Your task to perform on an android device: clear history in the chrome app Image 0: 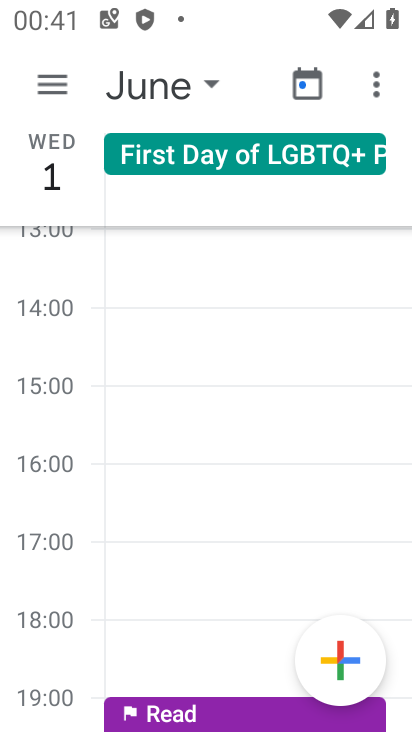
Step 0: press home button
Your task to perform on an android device: clear history in the chrome app Image 1: 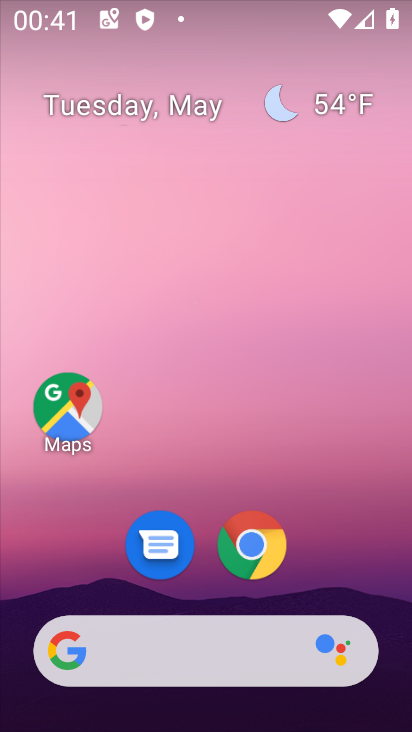
Step 1: click (266, 551)
Your task to perform on an android device: clear history in the chrome app Image 2: 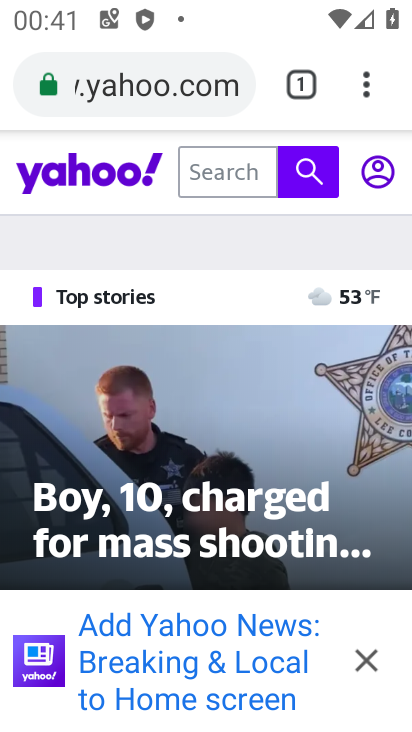
Step 2: click (363, 93)
Your task to perform on an android device: clear history in the chrome app Image 3: 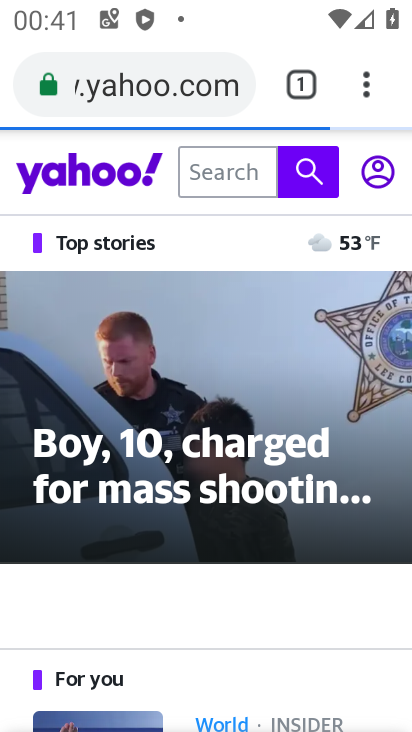
Step 3: click (372, 99)
Your task to perform on an android device: clear history in the chrome app Image 4: 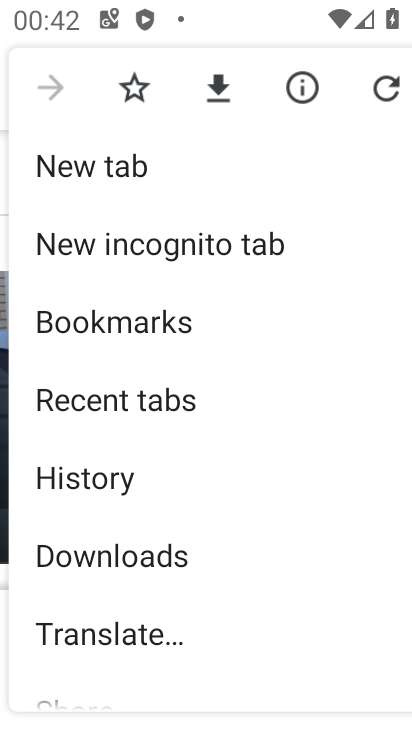
Step 4: click (206, 464)
Your task to perform on an android device: clear history in the chrome app Image 5: 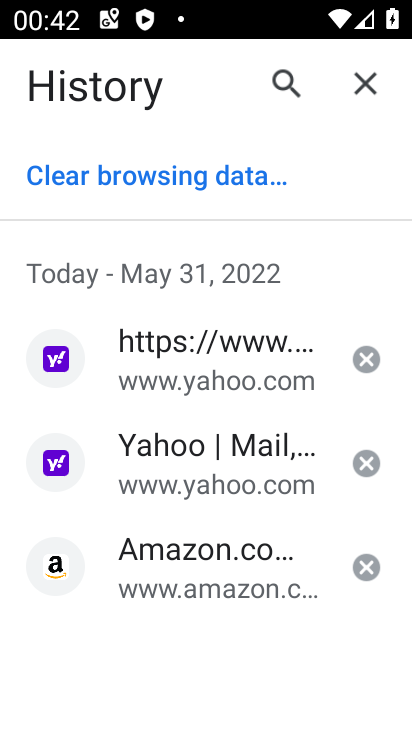
Step 5: click (231, 151)
Your task to perform on an android device: clear history in the chrome app Image 6: 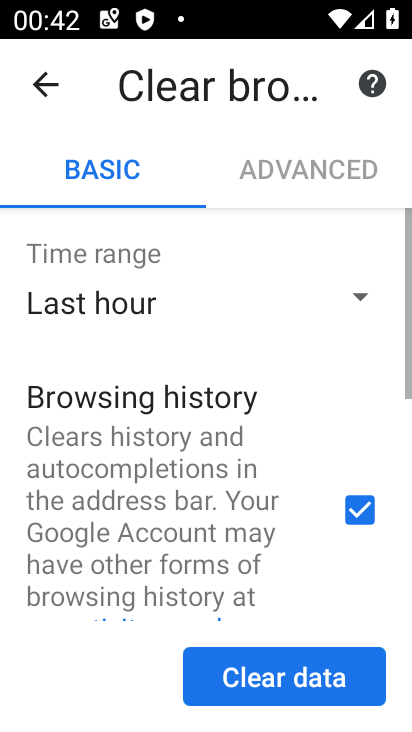
Step 6: click (278, 288)
Your task to perform on an android device: clear history in the chrome app Image 7: 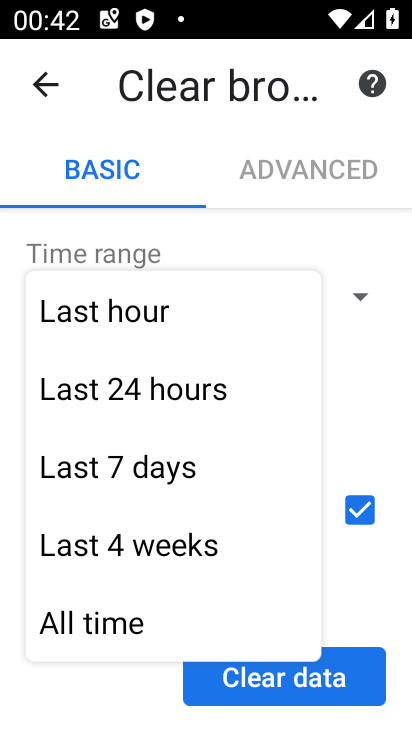
Step 7: click (153, 633)
Your task to perform on an android device: clear history in the chrome app Image 8: 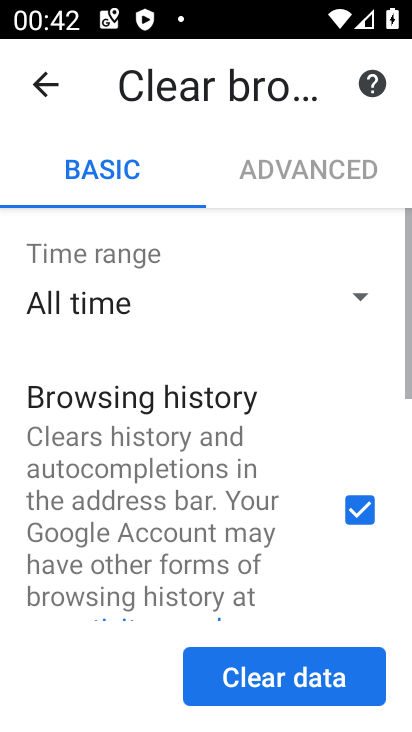
Step 8: click (307, 708)
Your task to perform on an android device: clear history in the chrome app Image 9: 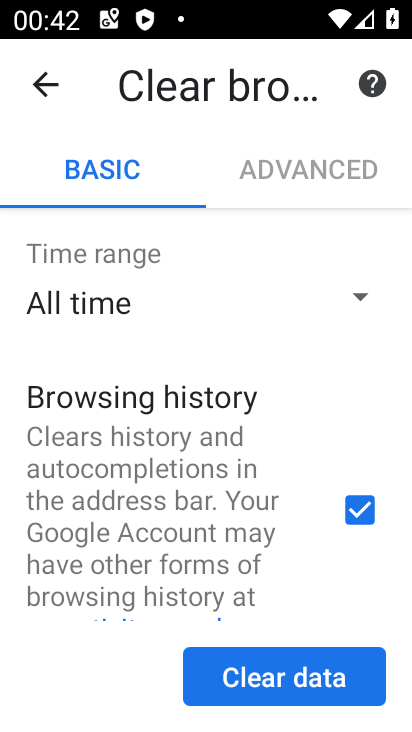
Step 9: click (313, 686)
Your task to perform on an android device: clear history in the chrome app Image 10: 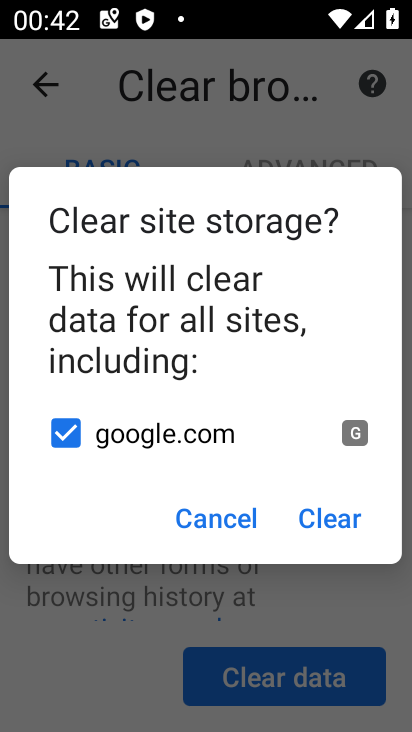
Step 10: click (330, 518)
Your task to perform on an android device: clear history in the chrome app Image 11: 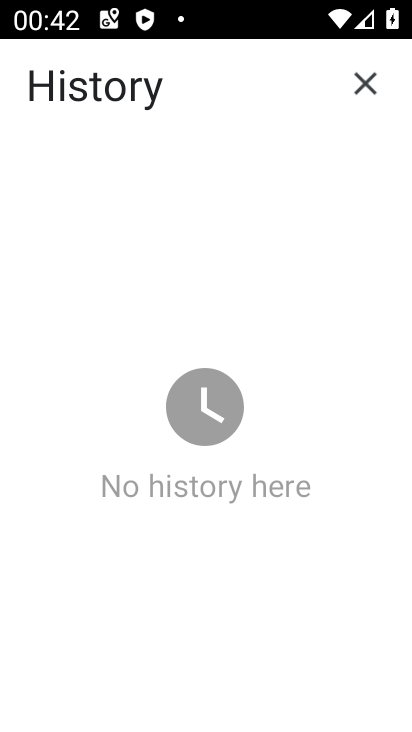
Step 11: task complete